Your task to perform on an android device: Open Maps and search for coffee Image 0: 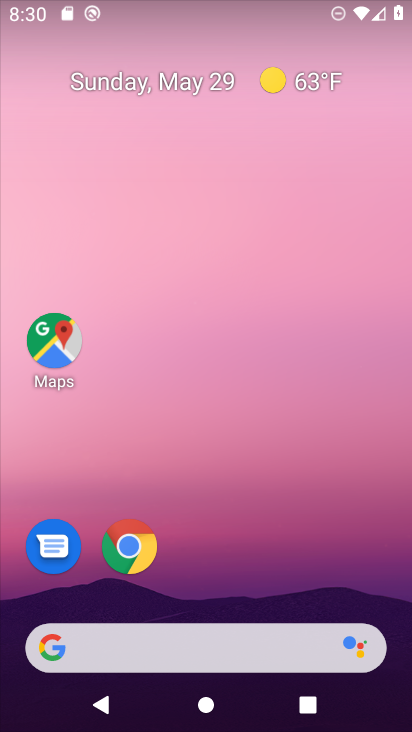
Step 0: press home button
Your task to perform on an android device: Open Maps and search for coffee Image 1: 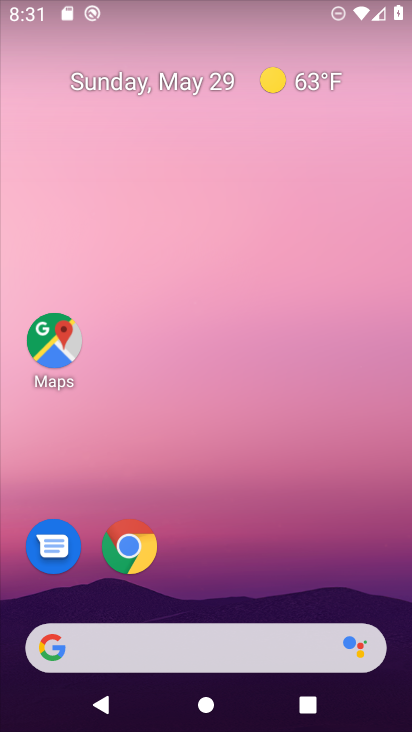
Step 1: click (53, 355)
Your task to perform on an android device: Open Maps and search for coffee Image 2: 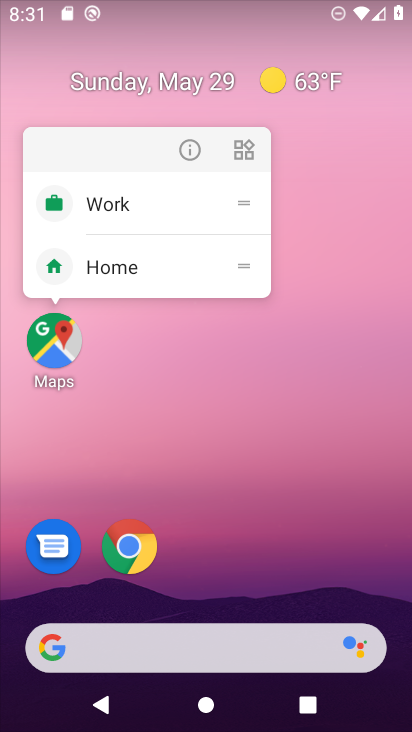
Step 2: click (55, 345)
Your task to perform on an android device: Open Maps and search for coffee Image 3: 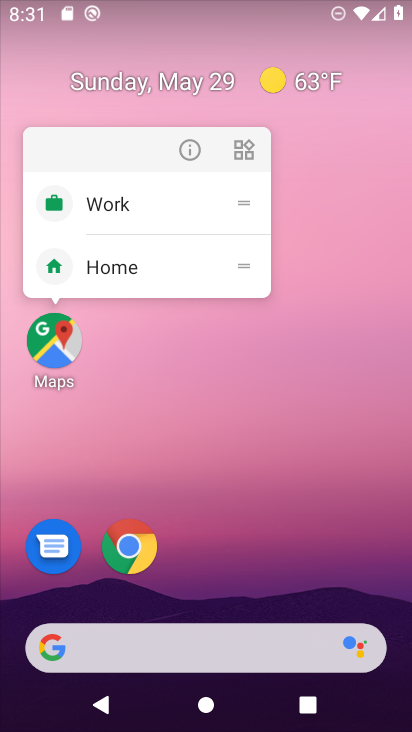
Step 3: click (51, 348)
Your task to perform on an android device: Open Maps and search for coffee Image 4: 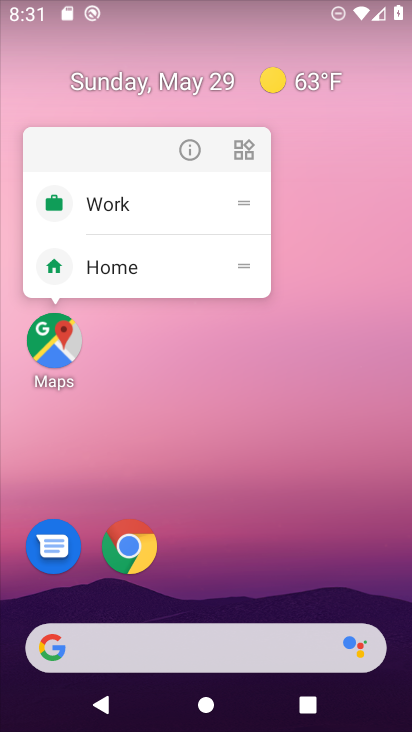
Step 4: click (51, 337)
Your task to perform on an android device: Open Maps and search for coffee Image 5: 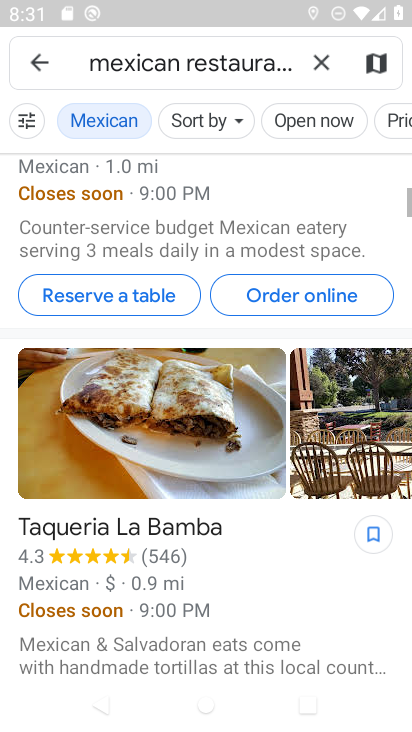
Step 5: click (314, 61)
Your task to perform on an android device: Open Maps and search for coffee Image 6: 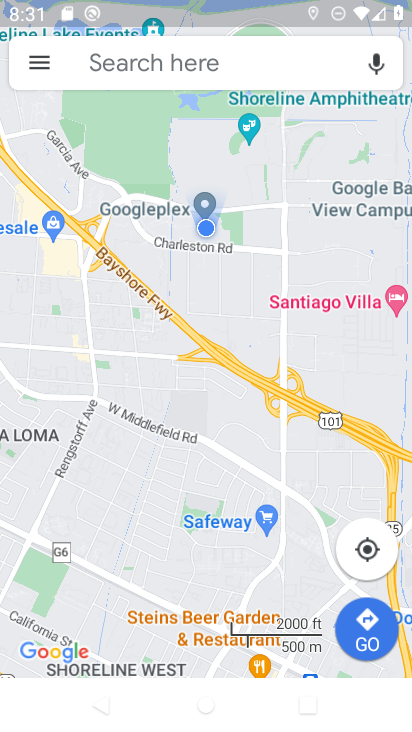
Step 6: click (206, 55)
Your task to perform on an android device: Open Maps and search for coffee Image 7: 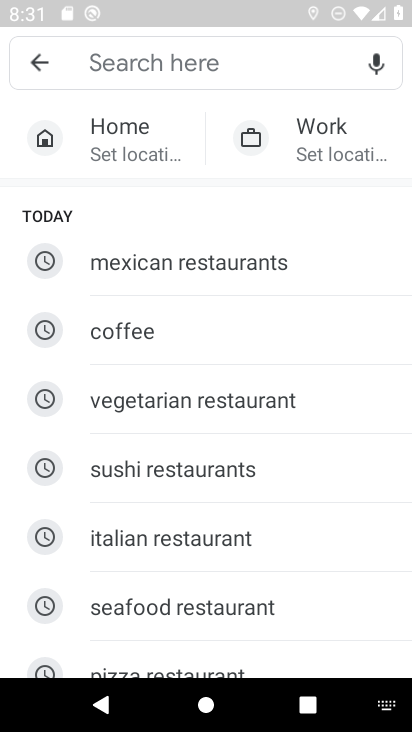
Step 7: click (137, 331)
Your task to perform on an android device: Open Maps and search for coffee Image 8: 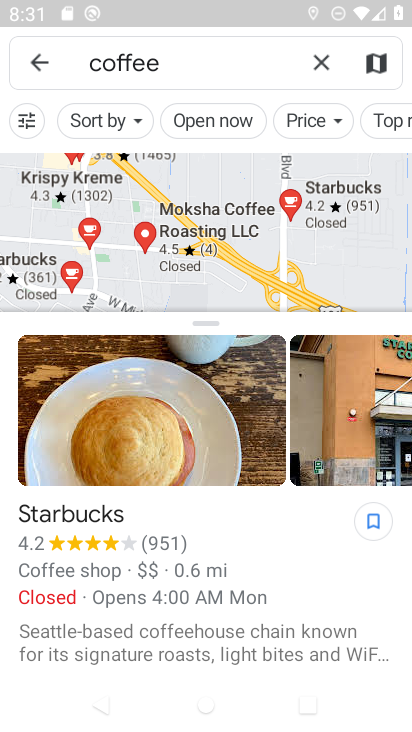
Step 8: task complete